Your task to perform on an android device: What's on my calendar tomorrow? Image 0: 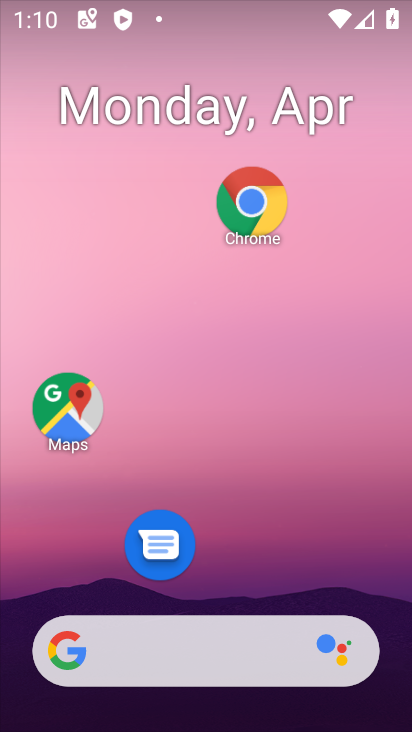
Step 0: click (239, 87)
Your task to perform on an android device: What's on my calendar tomorrow? Image 1: 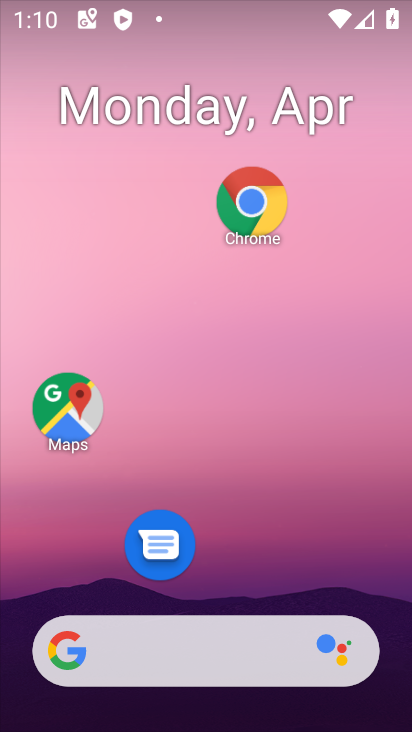
Step 1: click (211, 103)
Your task to perform on an android device: What's on my calendar tomorrow? Image 2: 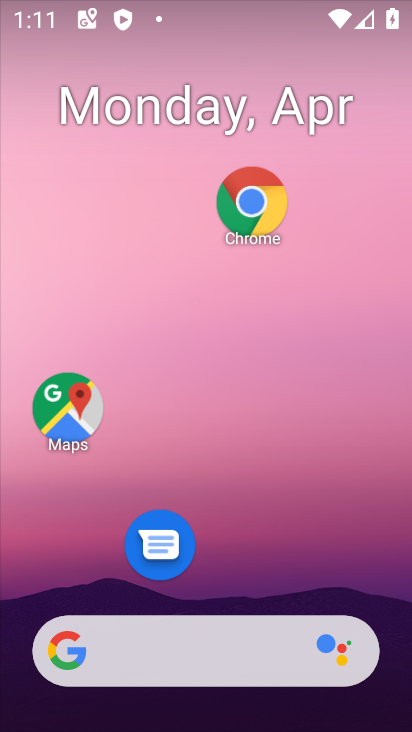
Step 2: click (174, 115)
Your task to perform on an android device: What's on my calendar tomorrow? Image 3: 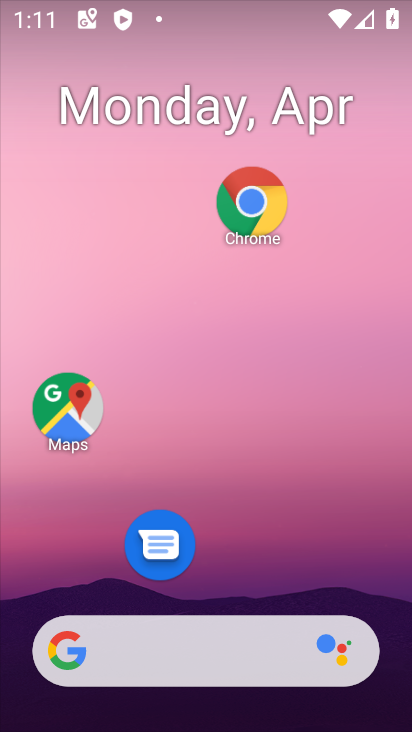
Step 3: click (210, 105)
Your task to perform on an android device: What's on my calendar tomorrow? Image 4: 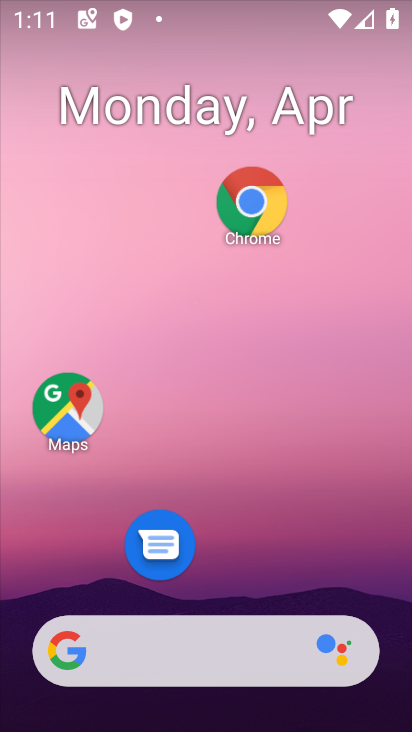
Step 4: click (165, 130)
Your task to perform on an android device: What's on my calendar tomorrow? Image 5: 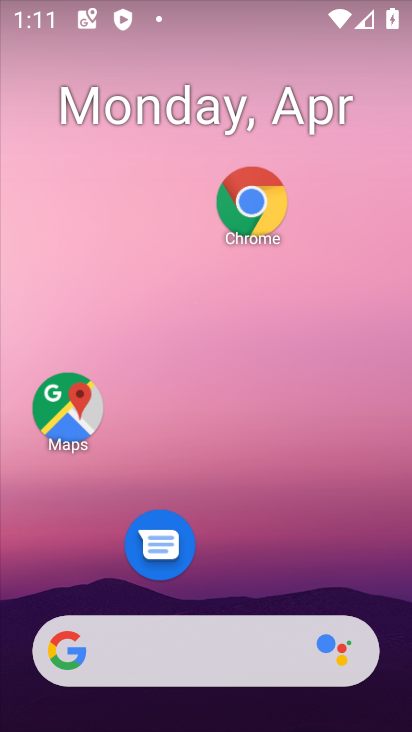
Step 5: click (204, 121)
Your task to perform on an android device: What's on my calendar tomorrow? Image 6: 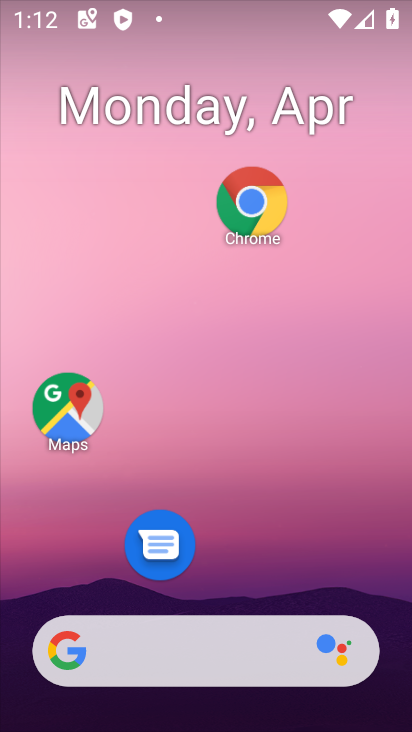
Step 6: click (205, 126)
Your task to perform on an android device: What's on my calendar tomorrow? Image 7: 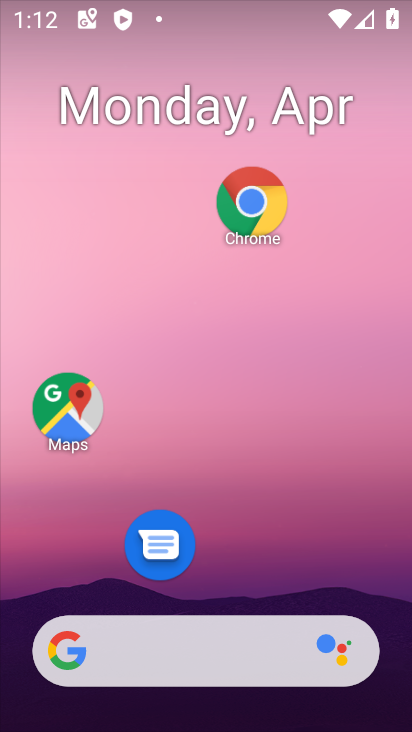
Step 7: click (205, 126)
Your task to perform on an android device: What's on my calendar tomorrow? Image 8: 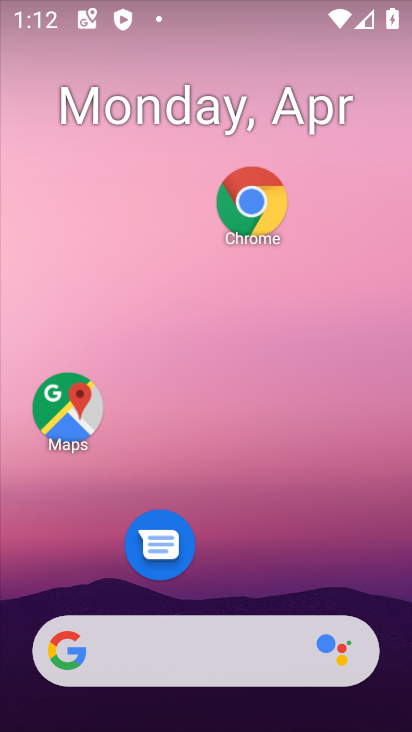
Step 8: click (205, 126)
Your task to perform on an android device: What's on my calendar tomorrow? Image 9: 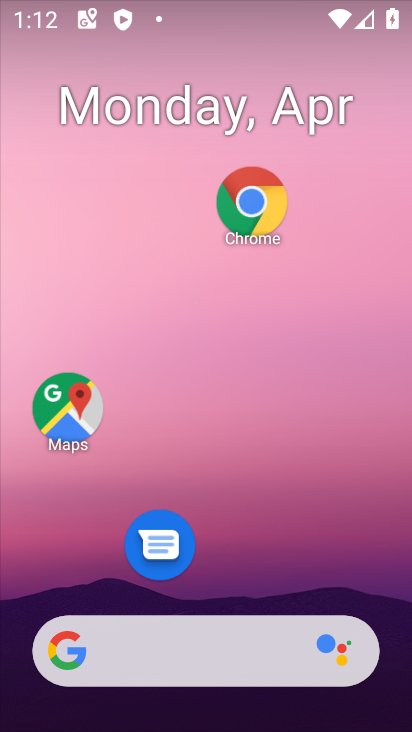
Step 9: drag from (267, 571) to (310, 109)
Your task to perform on an android device: What's on my calendar tomorrow? Image 10: 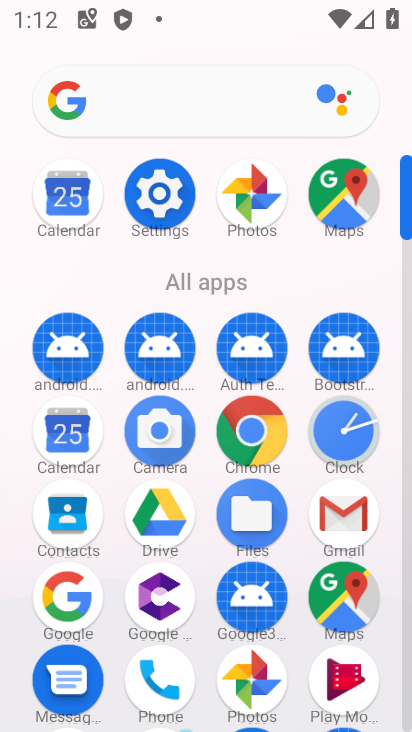
Step 10: click (66, 447)
Your task to perform on an android device: What's on my calendar tomorrow? Image 11: 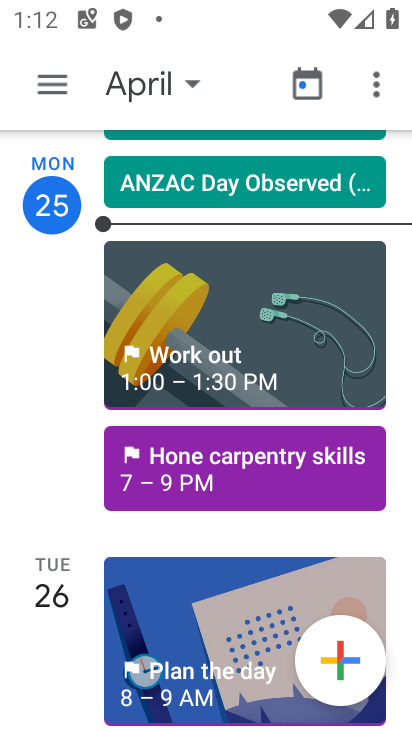
Step 11: click (161, 109)
Your task to perform on an android device: What's on my calendar tomorrow? Image 12: 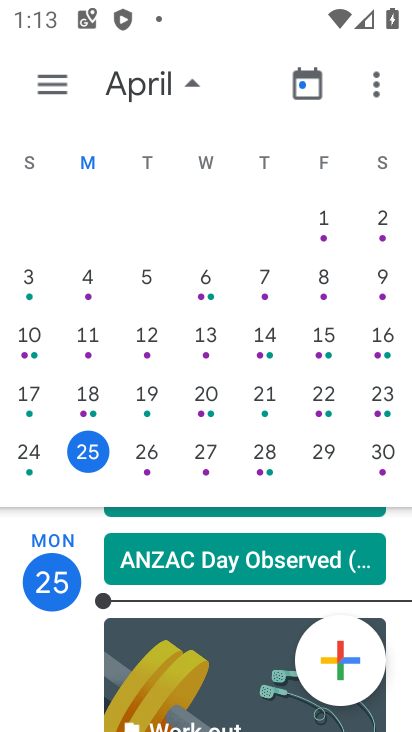
Step 12: click (148, 467)
Your task to perform on an android device: What's on my calendar tomorrow? Image 13: 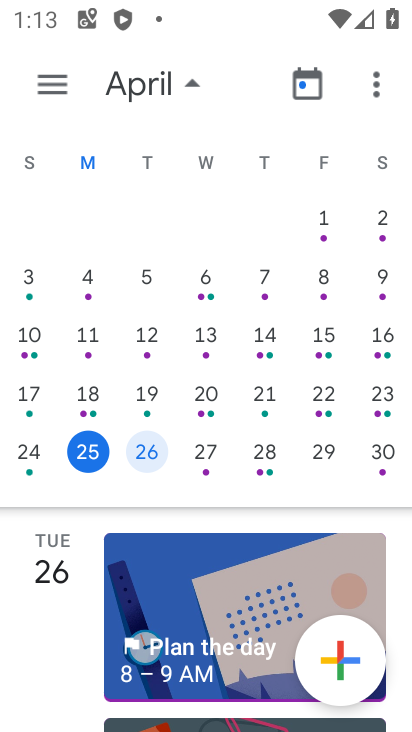
Step 13: click (138, 449)
Your task to perform on an android device: What's on my calendar tomorrow? Image 14: 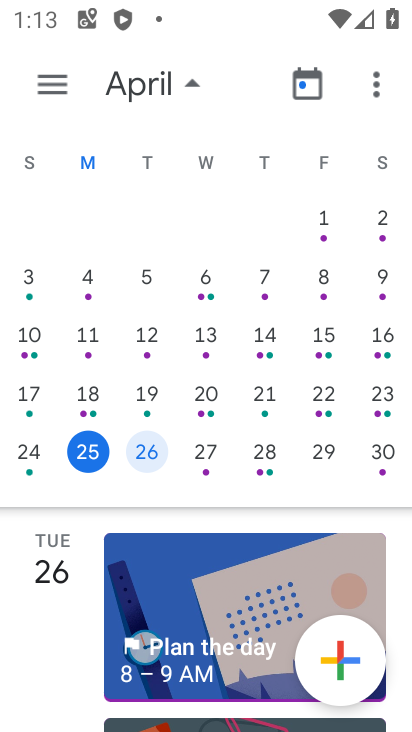
Step 14: task complete